Your task to perform on an android device: open app "Flipkart Online Shopping App" (install if not already installed), go to login, and select forgot password Image 0: 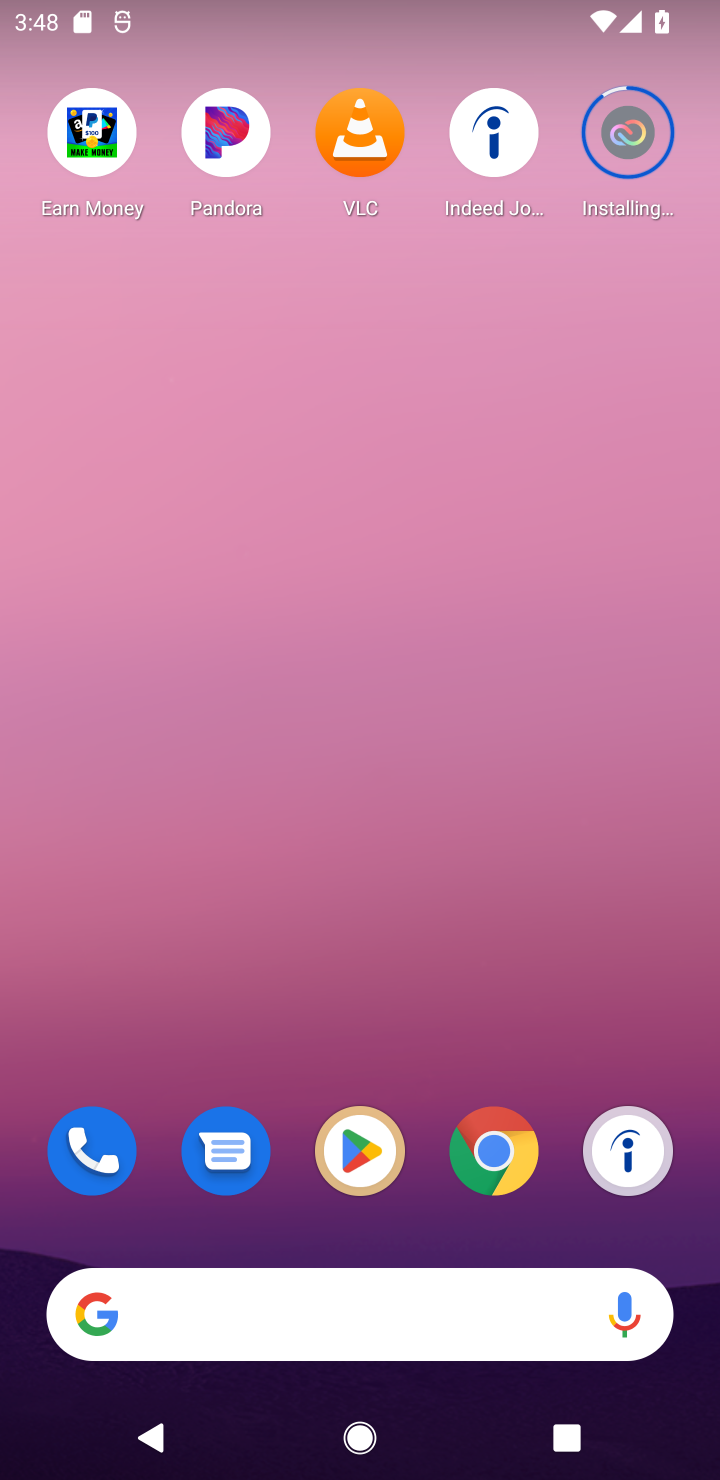
Step 0: click (388, 1147)
Your task to perform on an android device: open app "Flipkart Online Shopping App" (install if not already installed), go to login, and select forgot password Image 1: 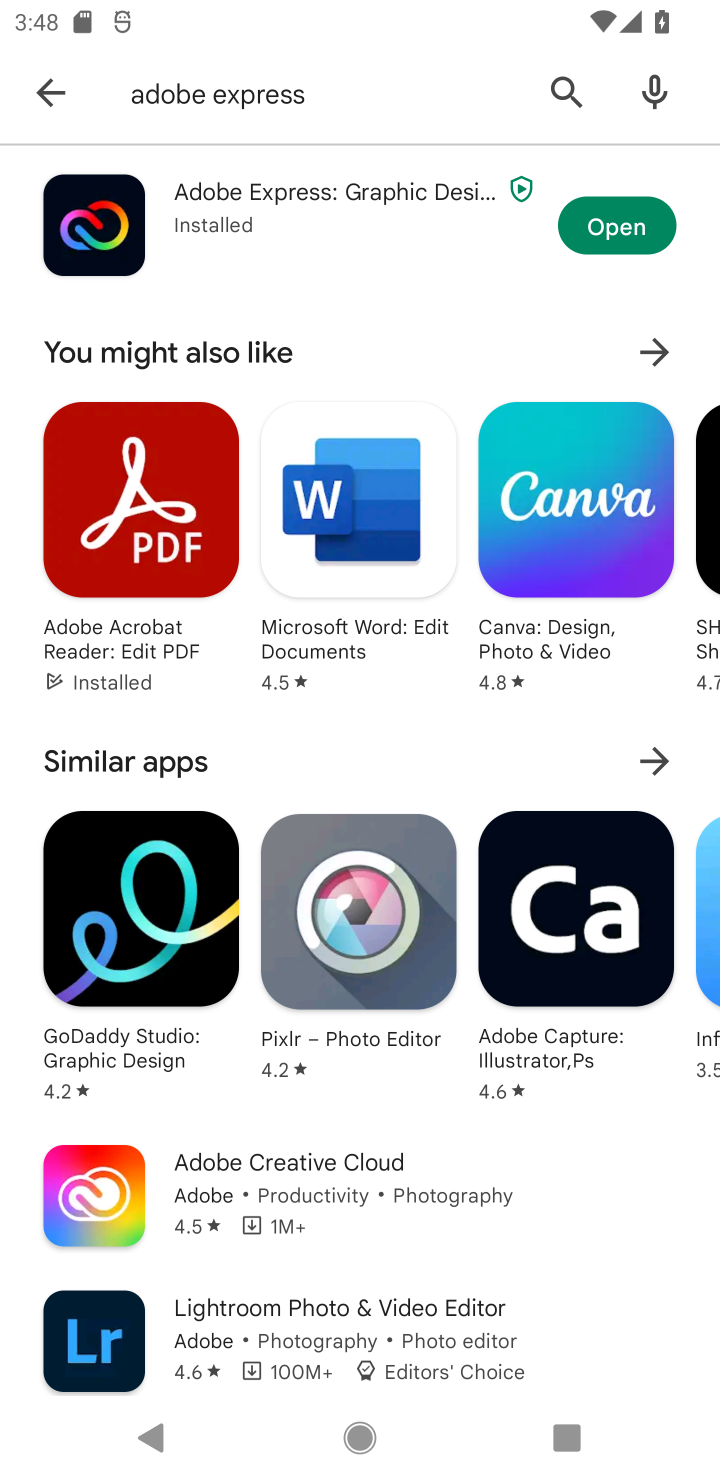
Step 1: click (552, 75)
Your task to perform on an android device: open app "Flipkart Online Shopping App" (install if not already installed), go to login, and select forgot password Image 2: 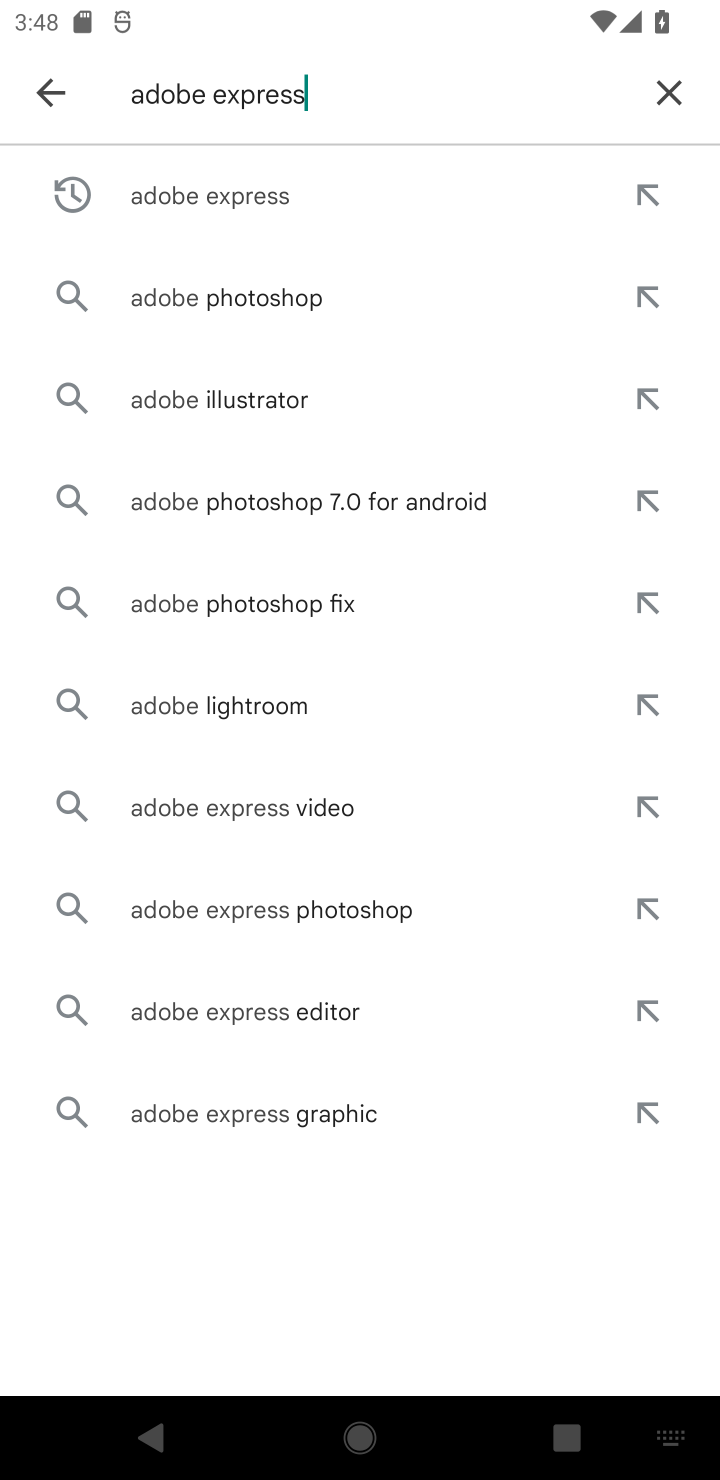
Step 2: click (695, 101)
Your task to perform on an android device: open app "Flipkart Online Shopping App" (install if not already installed), go to login, and select forgot password Image 3: 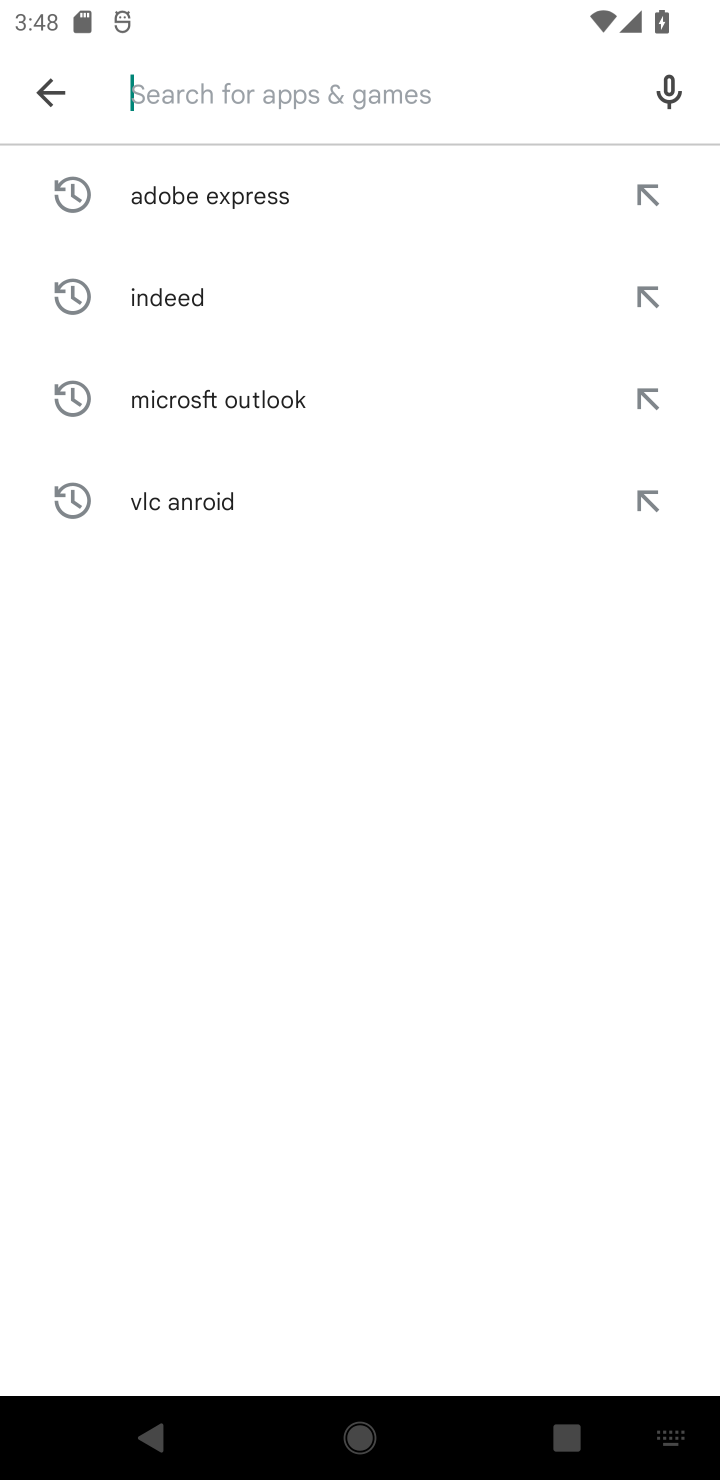
Step 3: type "flipkart"
Your task to perform on an android device: open app "Flipkart Online Shopping App" (install if not already installed), go to login, and select forgot password Image 4: 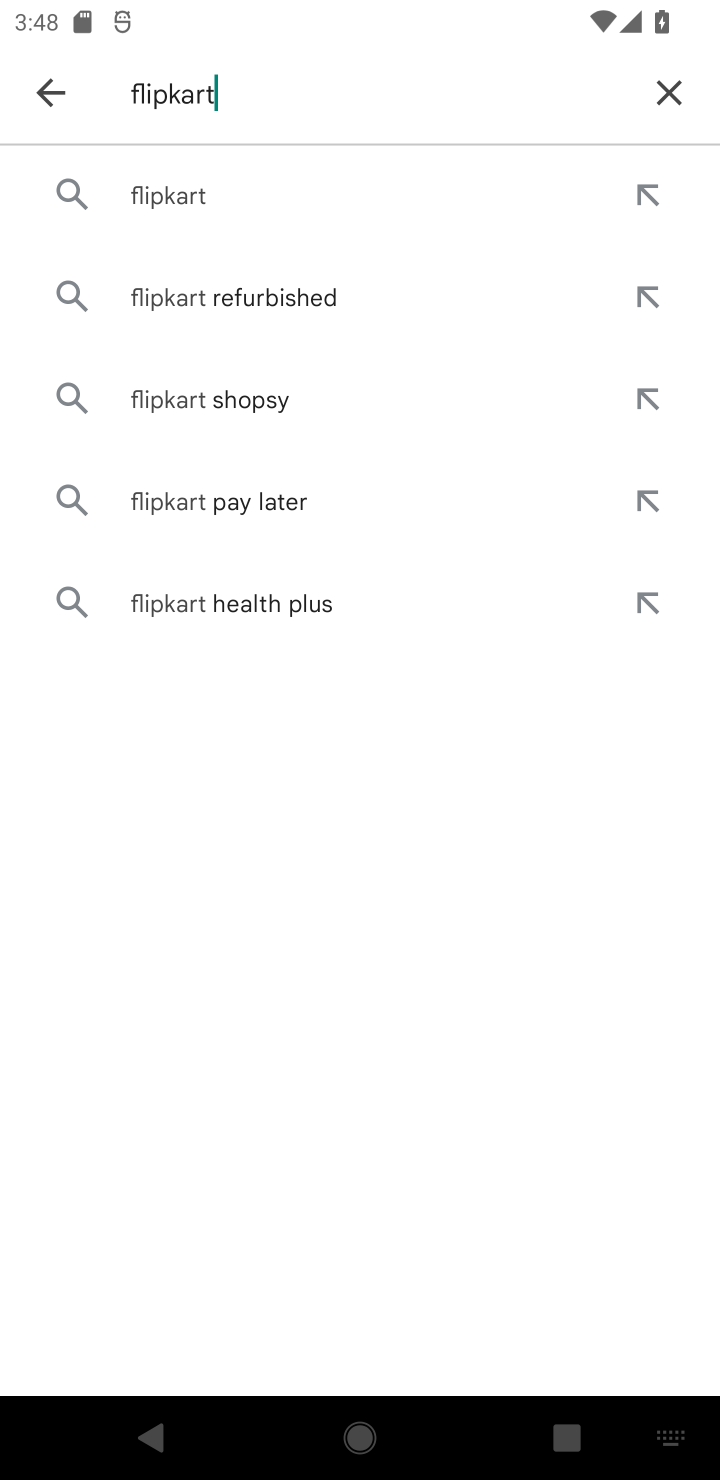
Step 4: click (436, 184)
Your task to perform on an android device: open app "Flipkart Online Shopping App" (install if not already installed), go to login, and select forgot password Image 5: 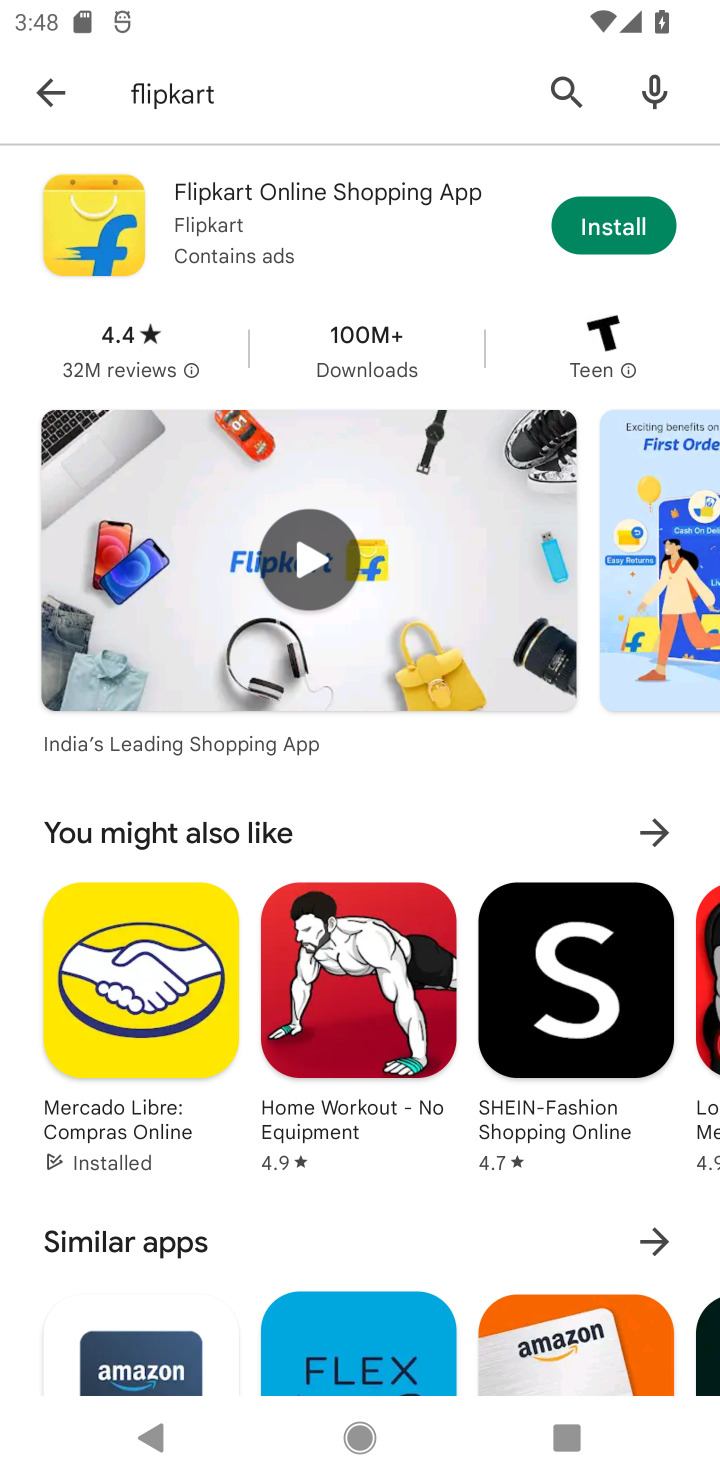
Step 5: click (626, 217)
Your task to perform on an android device: open app "Flipkart Online Shopping App" (install if not already installed), go to login, and select forgot password Image 6: 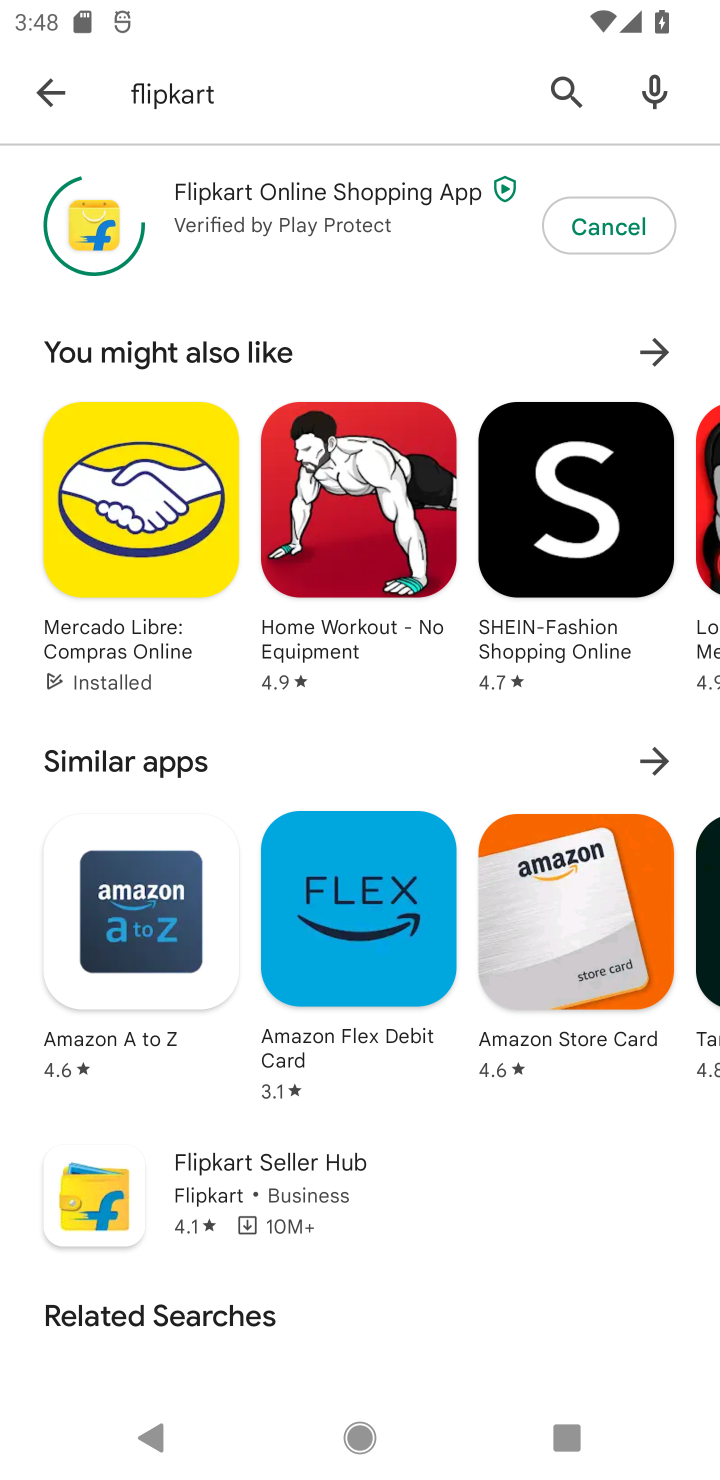
Step 6: task complete